Your task to perform on an android device: turn on data saver in the chrome app Image 0: 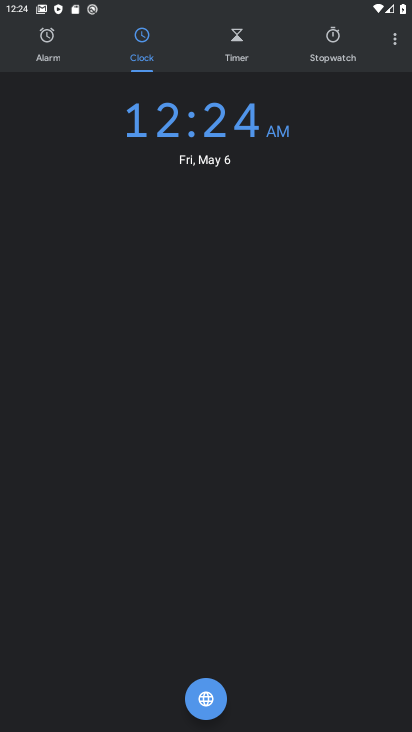
Step 0: press home button
Your task to perform on an android device: turn on data saver in the chrome app Image 1: 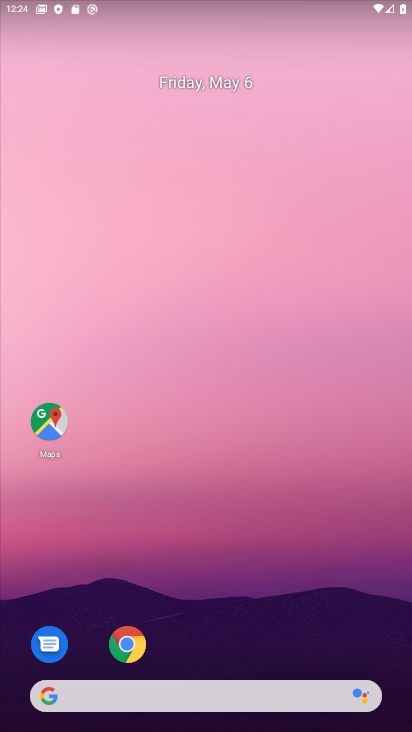
Step 1: click (130, 633)
Your task to perform on an android device: turn on data saver in the chrome app Image 2: 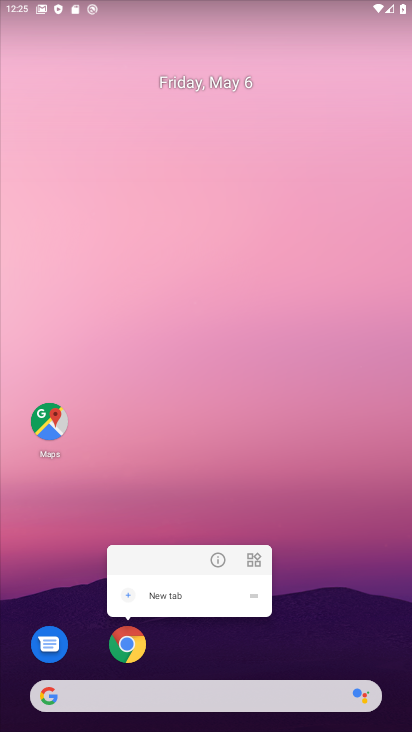
Step 2: click (131, 633)
Your task to perform on an android device: turn on data saver in the chrome app Image 3: 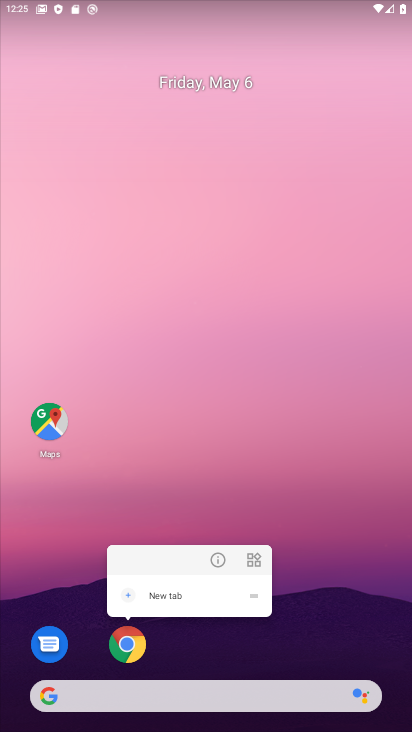
Step 3: click (136, 648)
Your task to perform on an android device: turn on data saver in the chrome app Image 4: 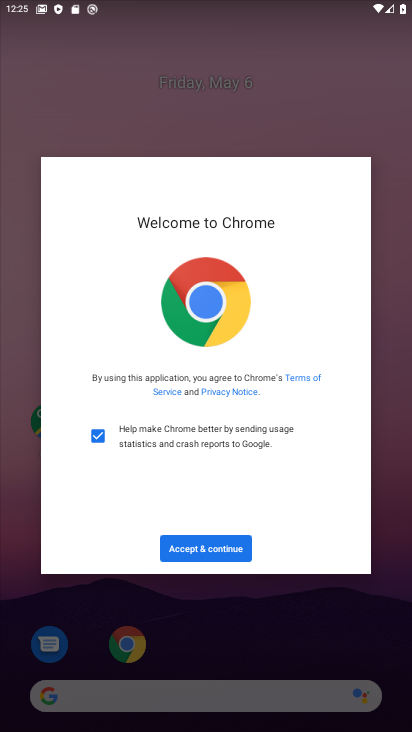
Step 4: click (222, 551)
Your task to perform on an android device: turn on data saver in the chrome app Image 5: 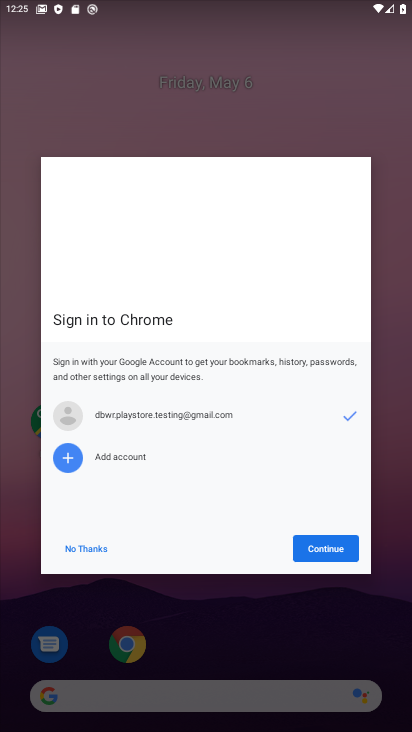
Step 5: click (321, 551)
Your task to perform on an android device: turn on data saver in the chrome app Image 6: 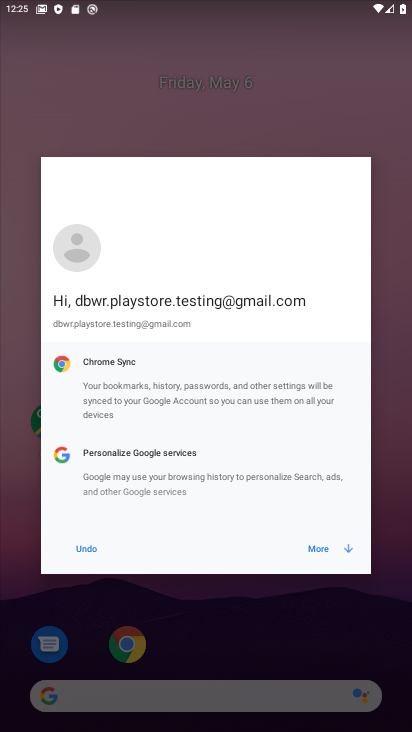
Step 6: click (318, 553)
Your task to perform on an android device: turn on data saver in the chrome app Image 7: 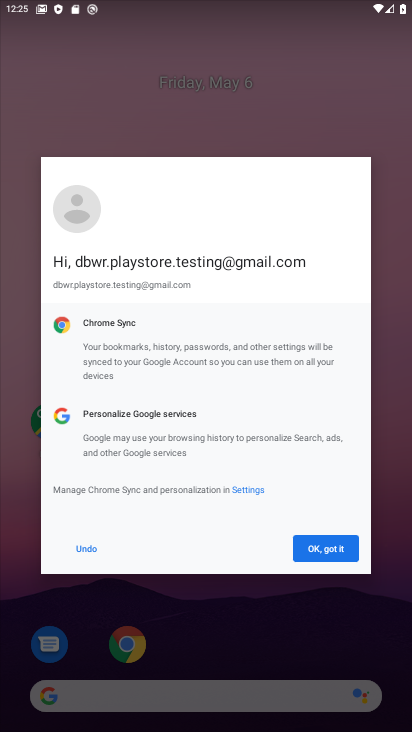
Step 7: click (312, 543)
Your task to perform on an android device: turn on data saver in the chrome app Image 8: 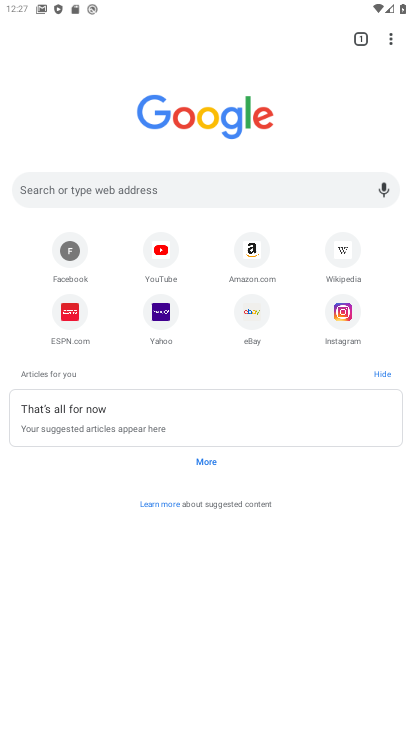
Step 8: click (391, 33)
Your task to perform on an android device: turn on data saver in the chrome app Image 9: 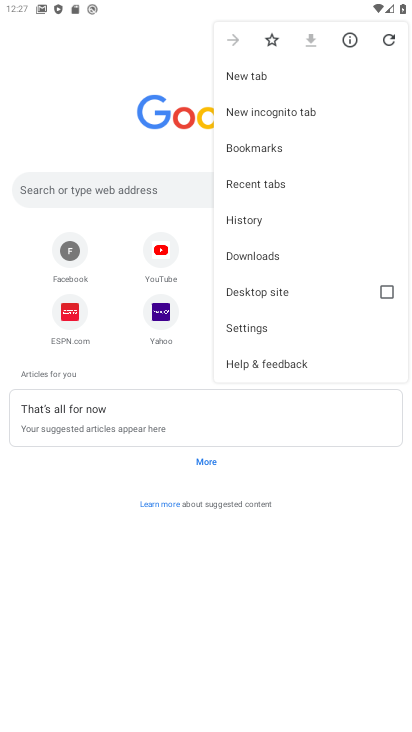
Step 9: click (256, 324)
Your task to perform on an android device: turn on data saver in the chrome app Image 10: 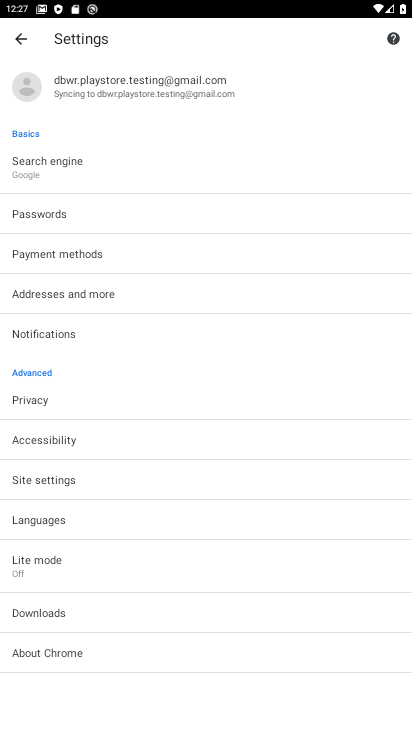
Step 10: click (40, 563)
Your task to perform on an android device: turn on data saver in the chrome app Image 11: 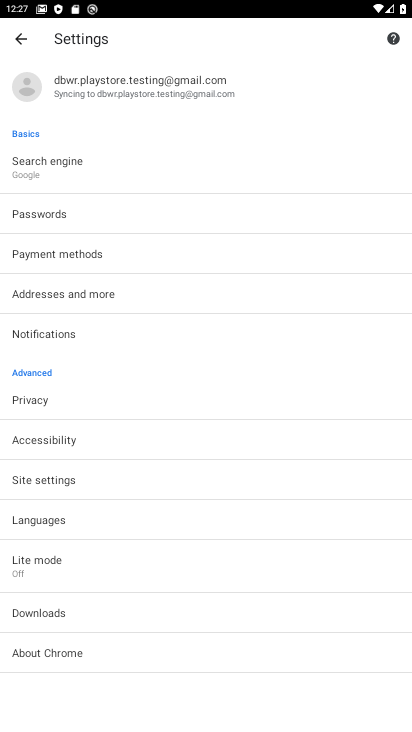
Step 11: click (54, 561)
Your task to perform on an android device: turn on data saver in the chrome app Image 12: 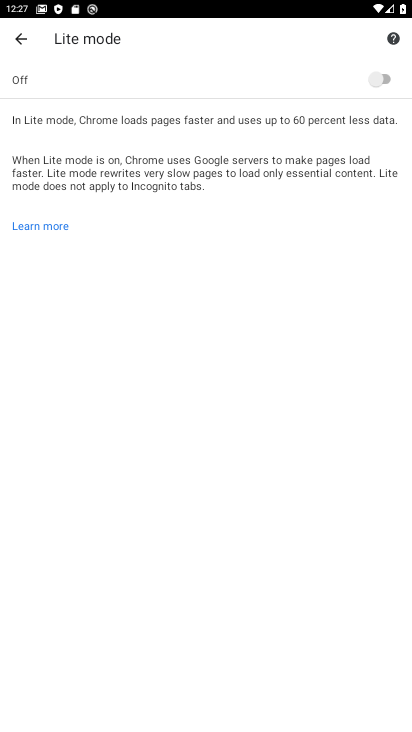
Step 12: click (378, 77)
Your task to perform on an android device: turn on data saver in the chrome app Image 13: 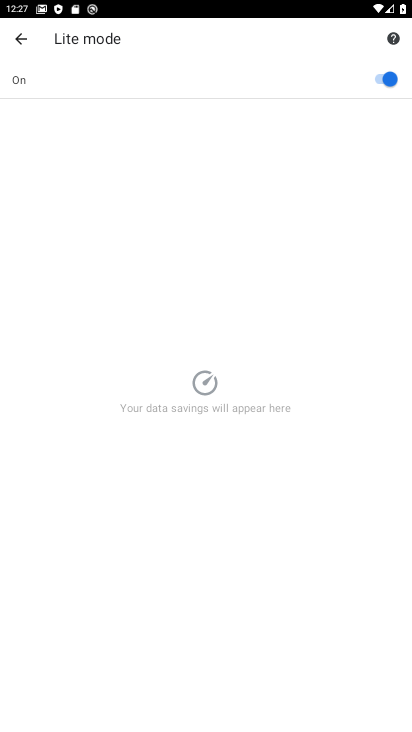
Step 13: task complete